Your task to perform on an android device: Open Google Chrome and open the bookmarks view Image 0: 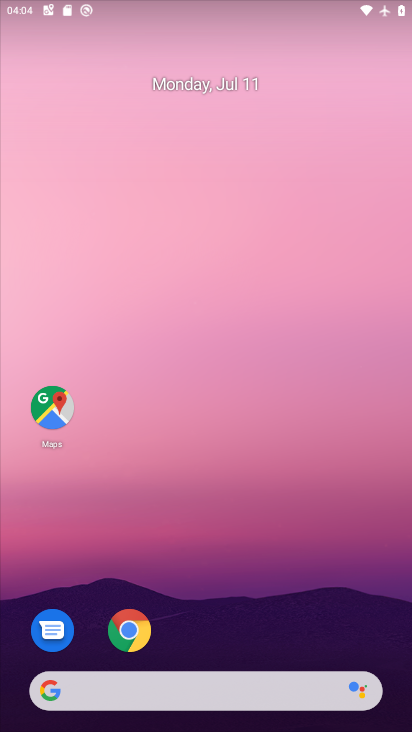
Step 0: drag from (231, 629) to (160, 131)
Your task to perform on an android device: Open Google Chrome and open the bookmarks view Image 1: 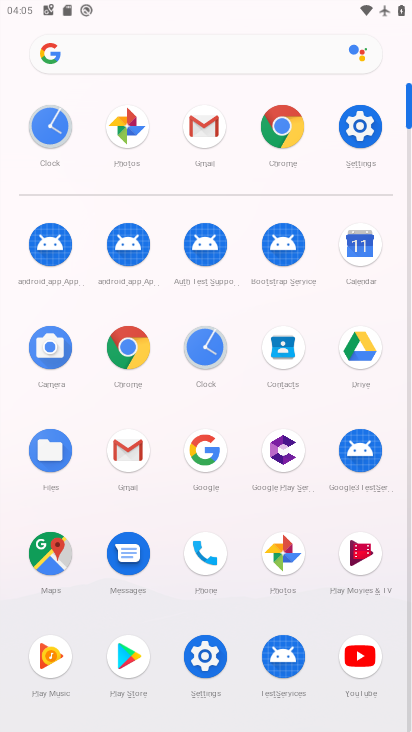
Step 1: click (292, 112)
Your task to perform on an android device: Open Google Chrome and open the bookmarks view Image 2: 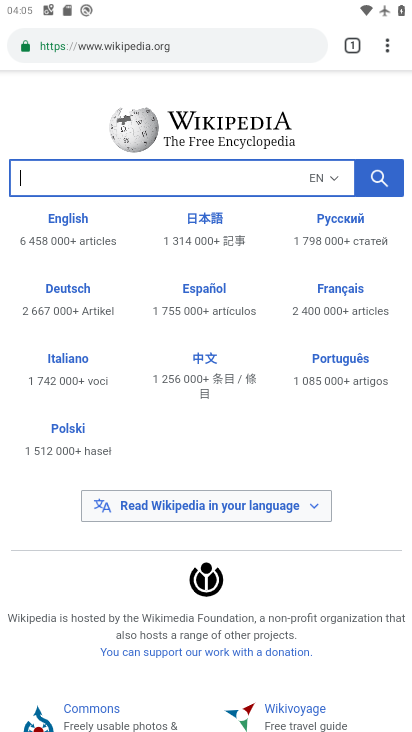
Step 2: click (376, 50)
Your task to perform on an android device: Open Google Chrome and open the bookmarks view Image 3: 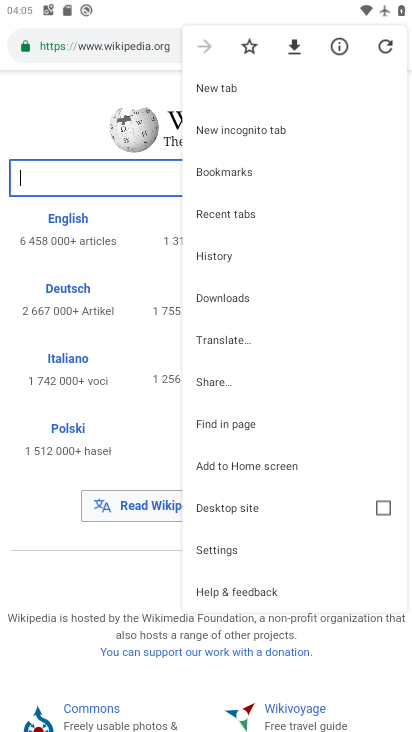
Step 3: click (237, 182)
Your task to perform on an android device: Open Google Chrome and open the bookmarks view Image 4: 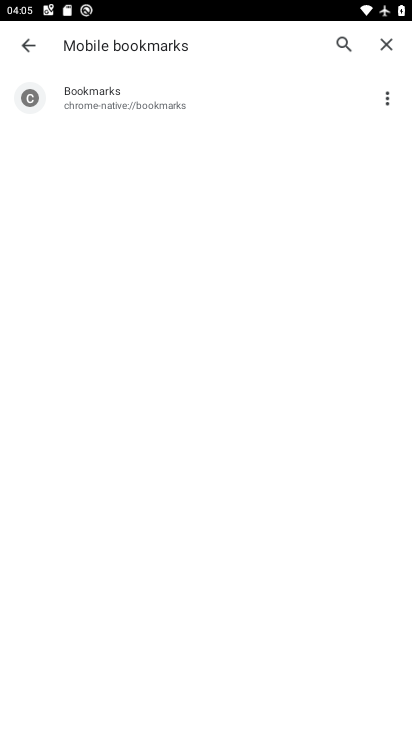
Step 4: task complete